Your task to perform on an android device: set default search engine in the chrome app Image 0: 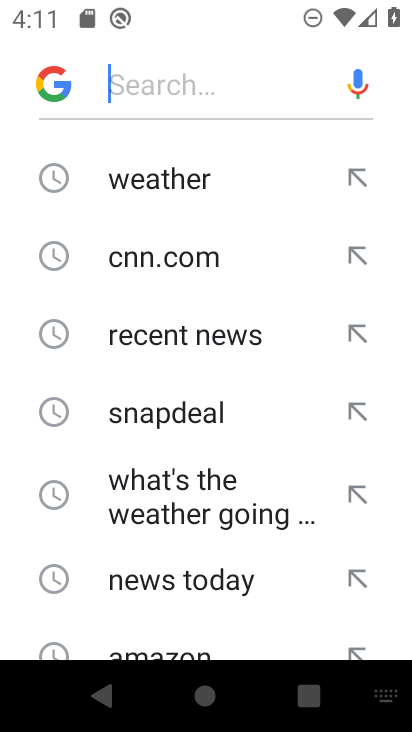
Step 0: press home button
Your task to perform on an android device: set default search engine in the chrome app Image 1: 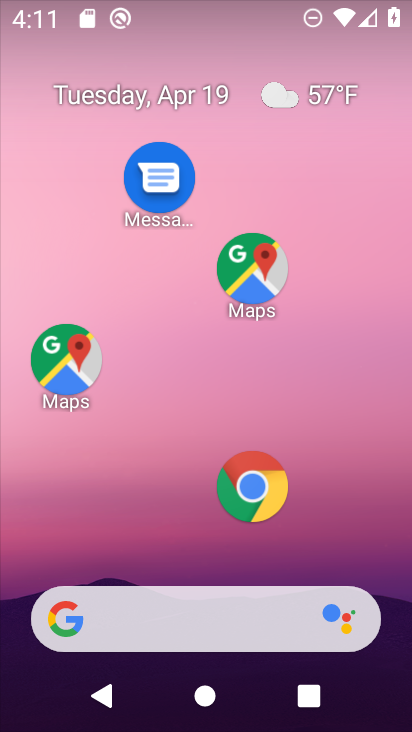
Step 1: click (273, 491)
Your task to perform on an android device: set default search engine in the chrome app Image 2: 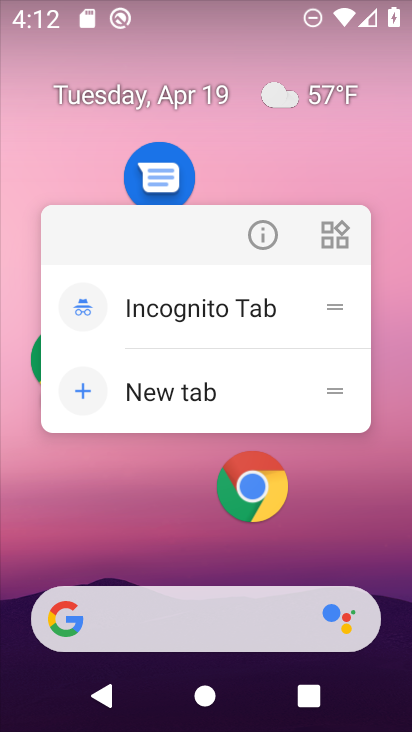
Step 2: click (274, 244)
Your task to perform on an android device: set default search engine in the chrome app Image 3: 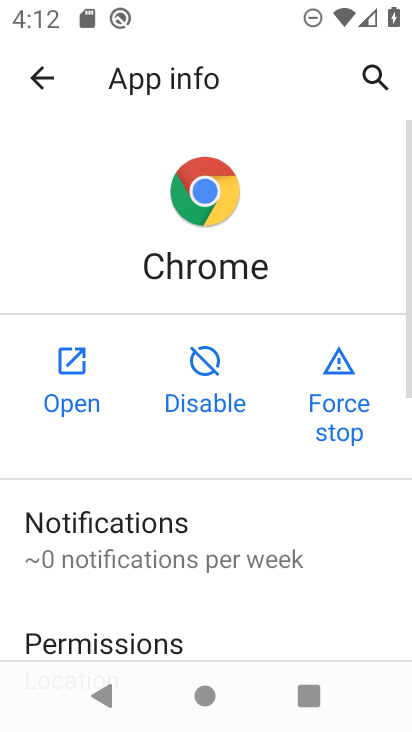
Step 3: click (82, 396)
Your task to perform on an android device: set default search engine in the chrome app Image 4: 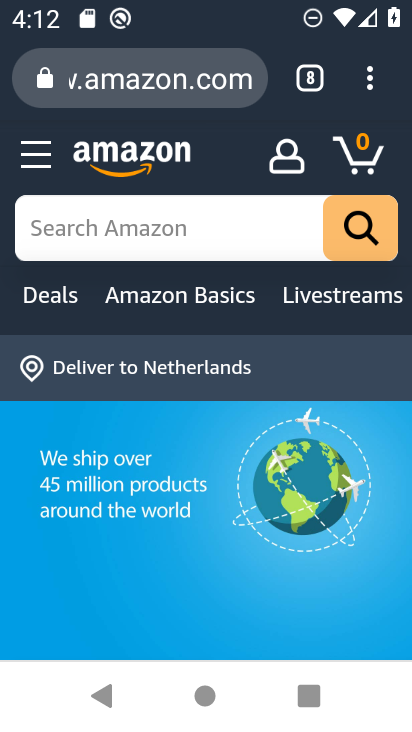
Step 4: click (363, 91)
Your task to perform on an android device: set default search engine in the chrome app Image 5: 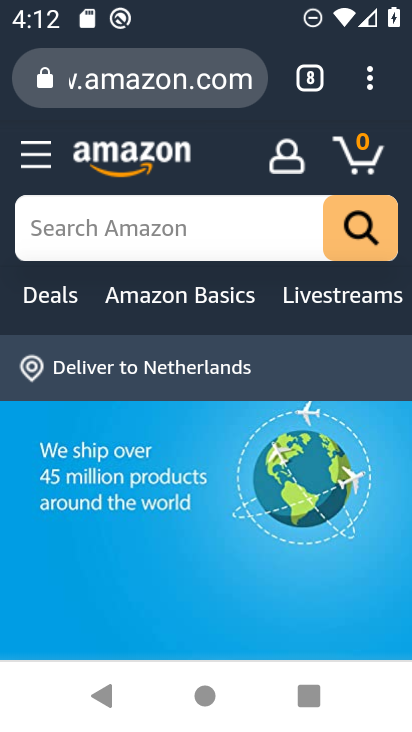
Step 5: click (367, 87)
Your task to perform on an android device: set default search engine in the chrome app Image 6: 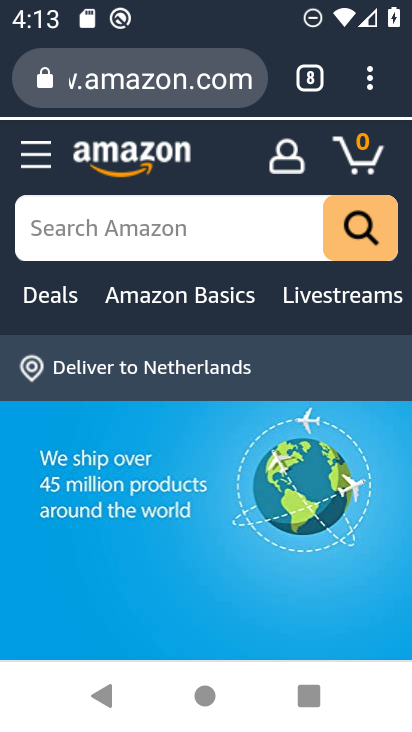
Step 6: click (374, 84)
Your task to perform on an android device: set default search engine in the chrome app Image 7: 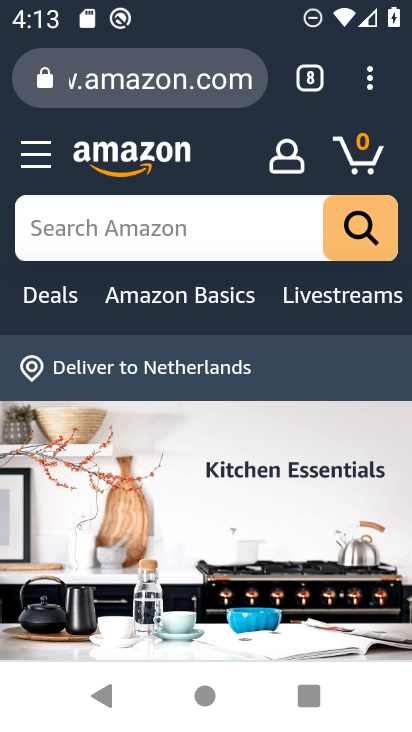
Step 7: click (369, 84)
Your task to perform on an android device: set default search engine in the chrome app Image 8: 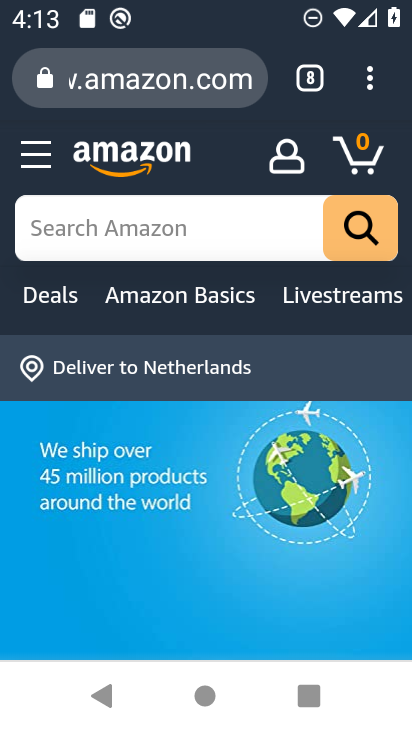
Step 8: click (373, 88)
Your task to perform on an android device: set default search engine in the chrome app Image 9: 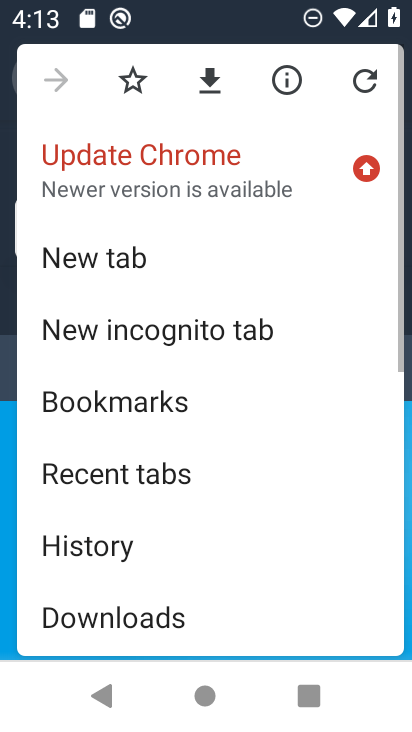
Step 9: drag from (300, 381) to (359, 152)
Your task to perform on an android device: set default search engine in the chrome app Image 10: 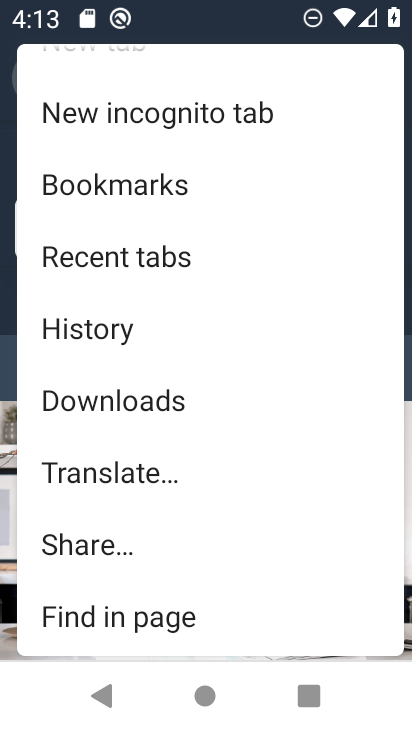
Step 10: drag from (184, 459) to (269, 195)
Your task to perform on an android device: set default search engine in the chrome app Image 11: 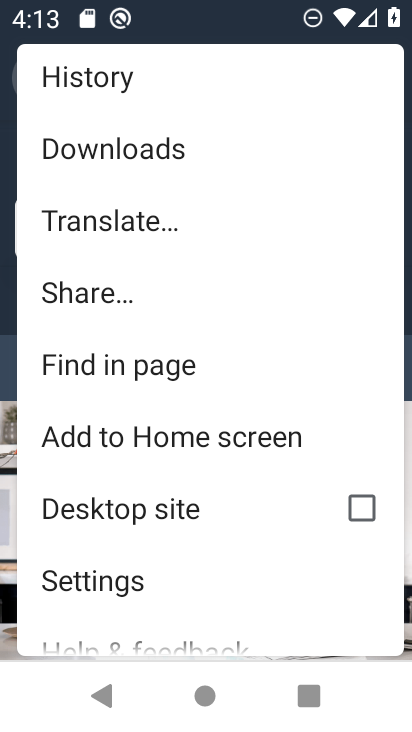
Step 11: click (158, 585)
Your task to perform on an android device: set default search engine in the chrome app Image 12: 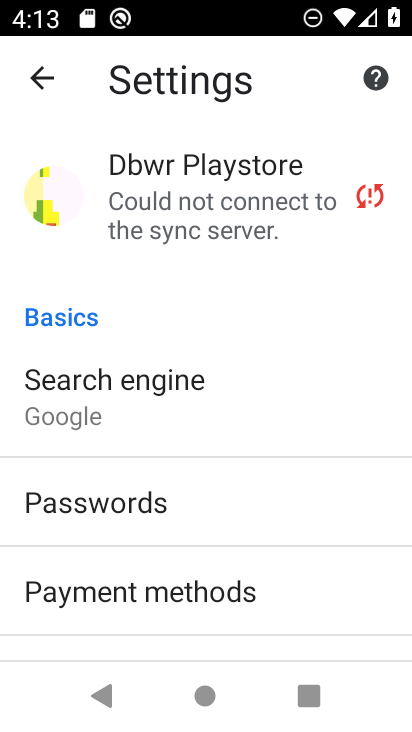
Step 12: drag from (223, 552) to (284, 256)
Your task to perform on an android device: set default search engine in the chrome app Image 13: 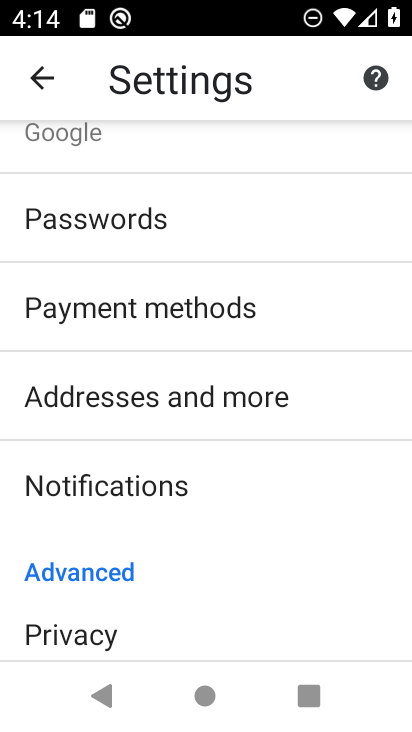
Step 13: drag from (224, 548) to (272, 280)
Your task to perform on an android device: set default search engine in the chrome app Image 14: 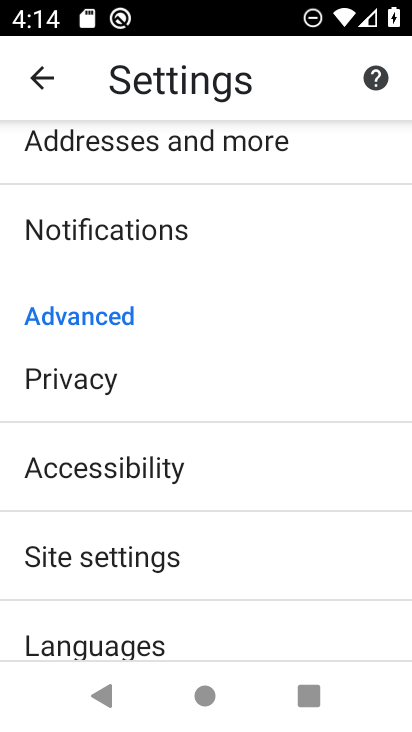
Step 14: drag from (288, 267) to (220, 691)
Your task to perform on an android device: set default search engine in the chrome app Image 15: 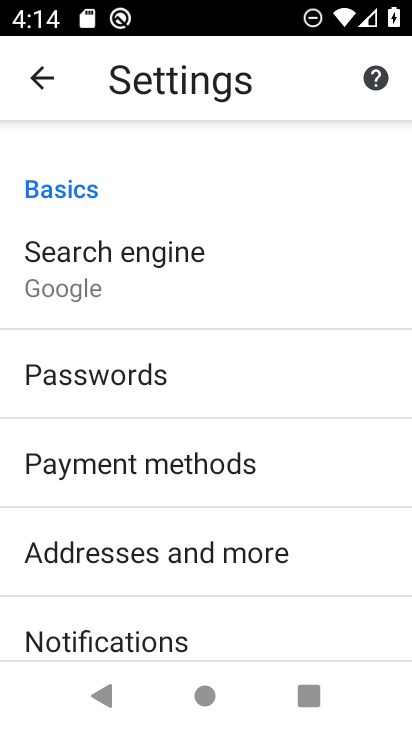
Step 15: click (199, 304)
Your task to perform on an android device: set default search engine in the chrome app Image 16: 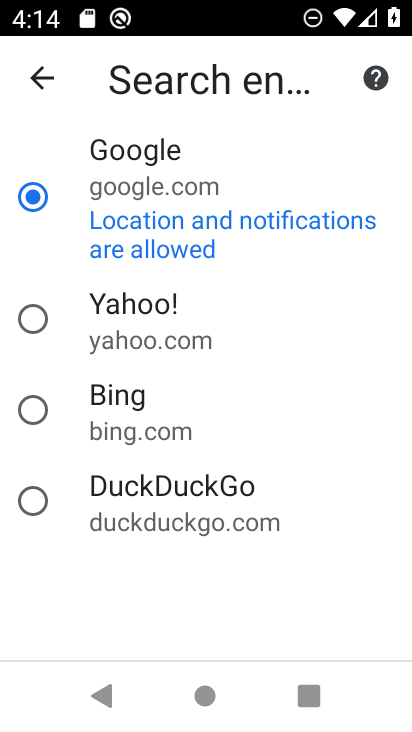
Step 16: task complete